Your task to perform on an android device: View the shopping cart on bestbuy.com. Add razer blackwidow to the cart on bestbuy.com Image 0: 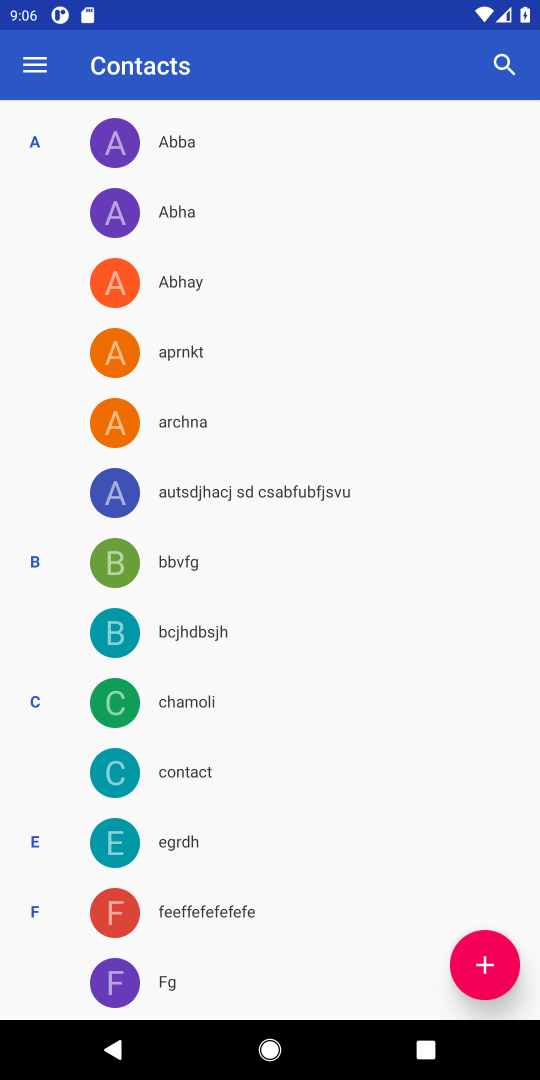
Step 0: press home button
Your task to perform on an android device: View the shopping cart on bestbuy.com. Add razer blackwidow to the cart on bestbuy.com Image 1: 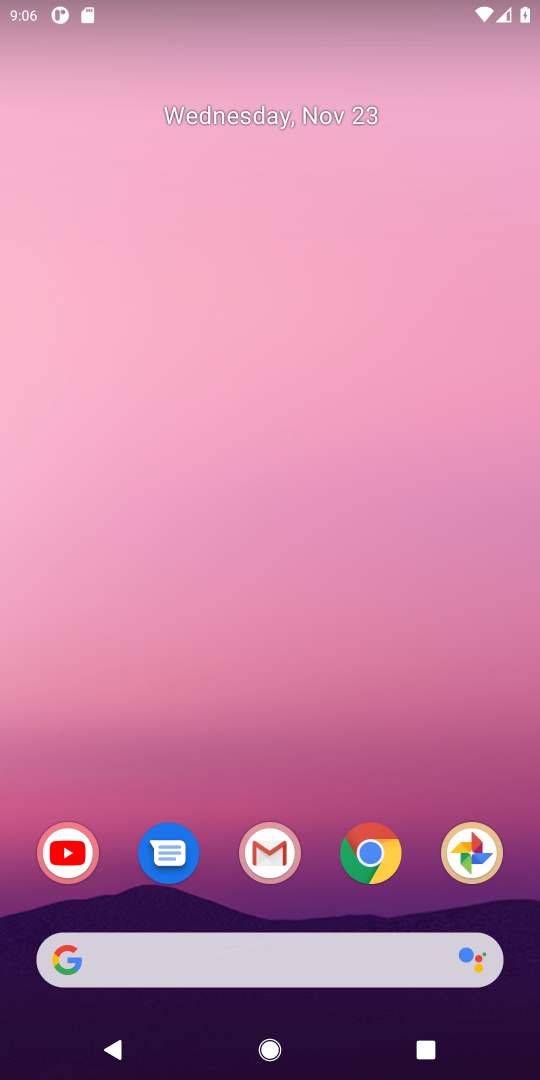
Step 1: click (368, 857)
Your task to perform on an android device: View the shopping cart on bestbuy.com. Add razer blackwidow to the cart on bestbuy.com Image 2: 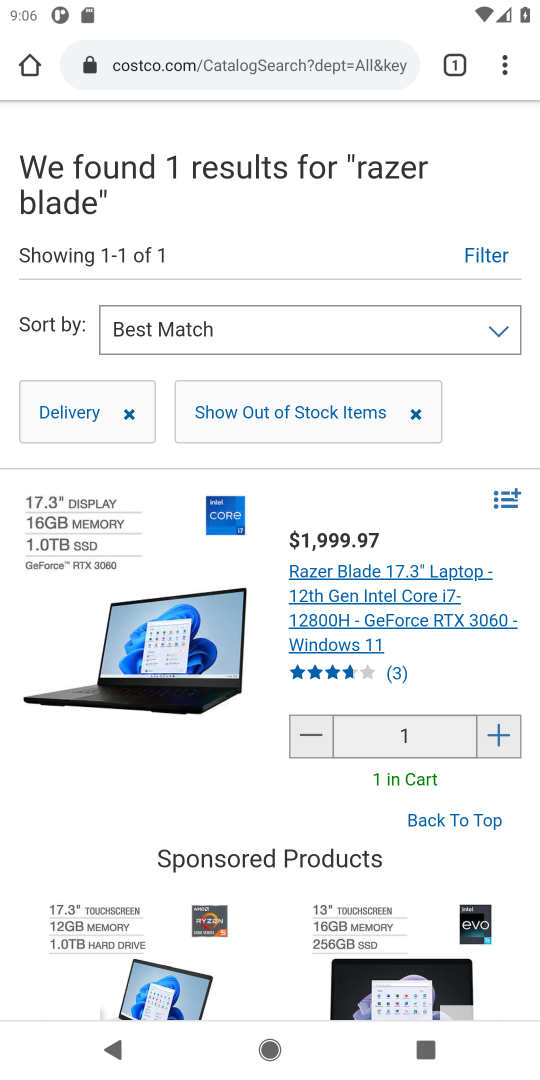
Step 2: click (197, 71)
Your task to perform on an android device: View the shopping cart on bestbuy.com. Add razer blackwidow to the cart on bestbuy.com Image 3: 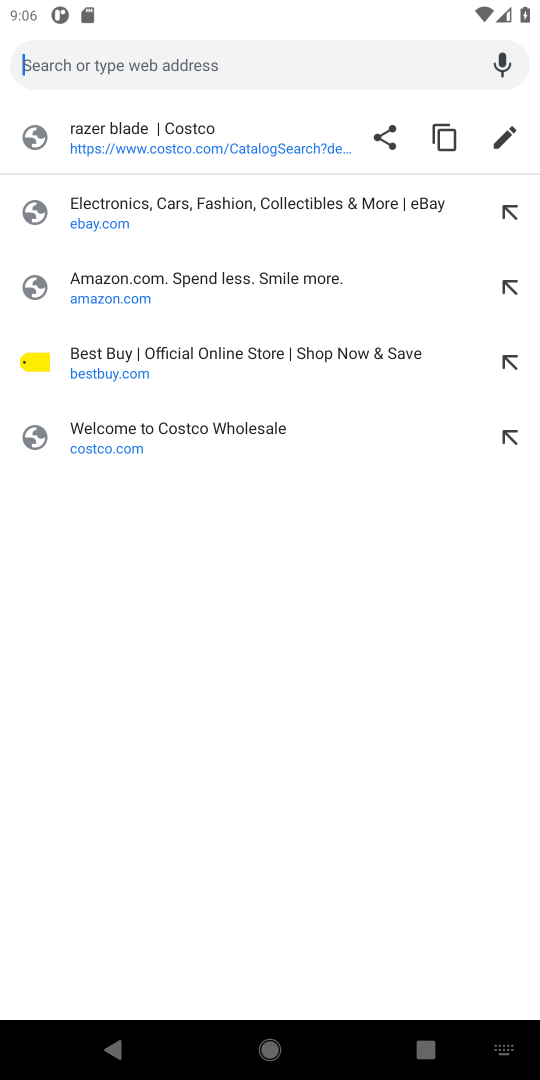
Step 3: click (82, 361)
Your task to perform on an android device: View the shopping cart on bestbuy.com. Add razer blackwidow to the cart on bestbuy.com Image 4: 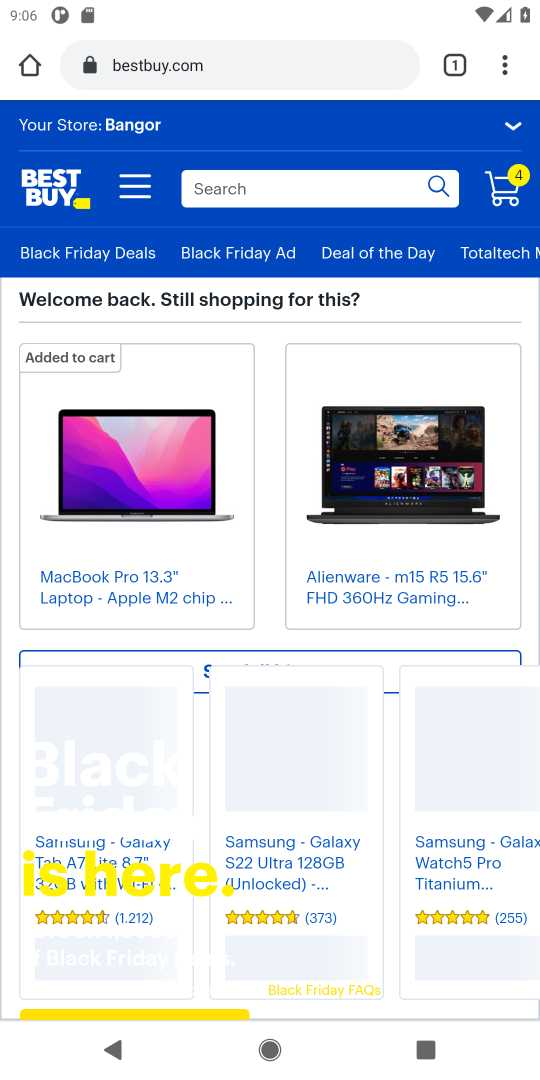
Step 4: click (513, 193)
Your task to perform on an android device: View the shopping cart on bestbuy.com. Add razer blackwidow to the cart on bestbuy.com Image 5: 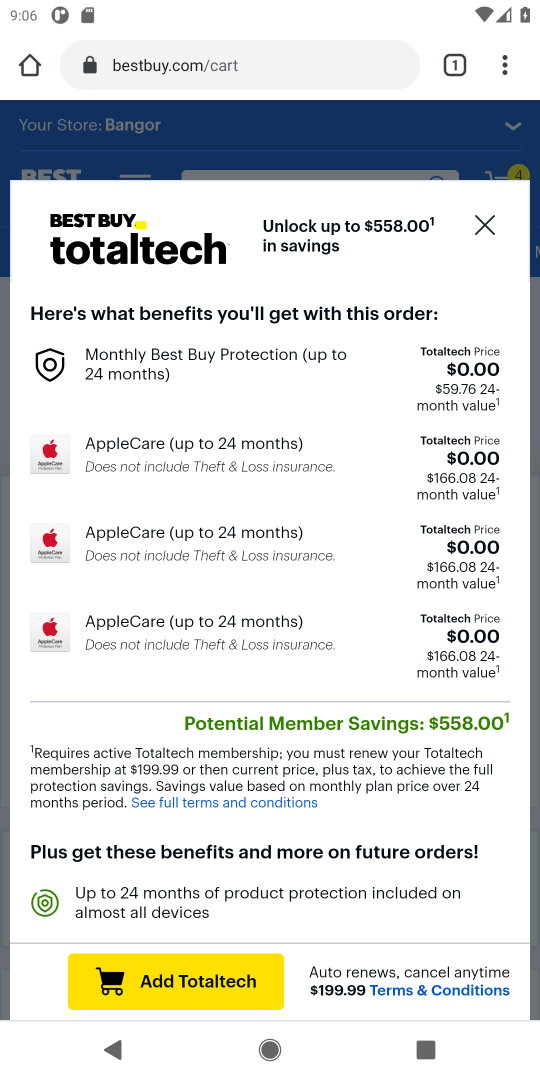
Step 5: click (488, 230)
Your task to perform on an android device: View the shopping cart on bestbuy.com. Add razer blackwidow to the cart on bestbuy.com Image 6: 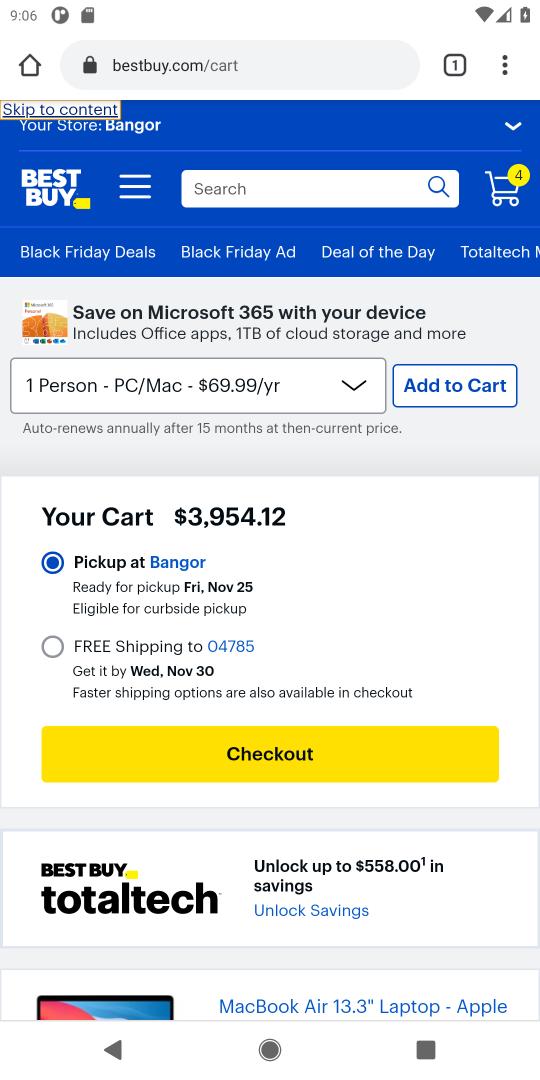
Step 6: click (273, 191)
Your task to perform on an android device: View the shopping cart on bestbuy.com. Add razer blackwidow to the cart on bestbuy.com Image 7: 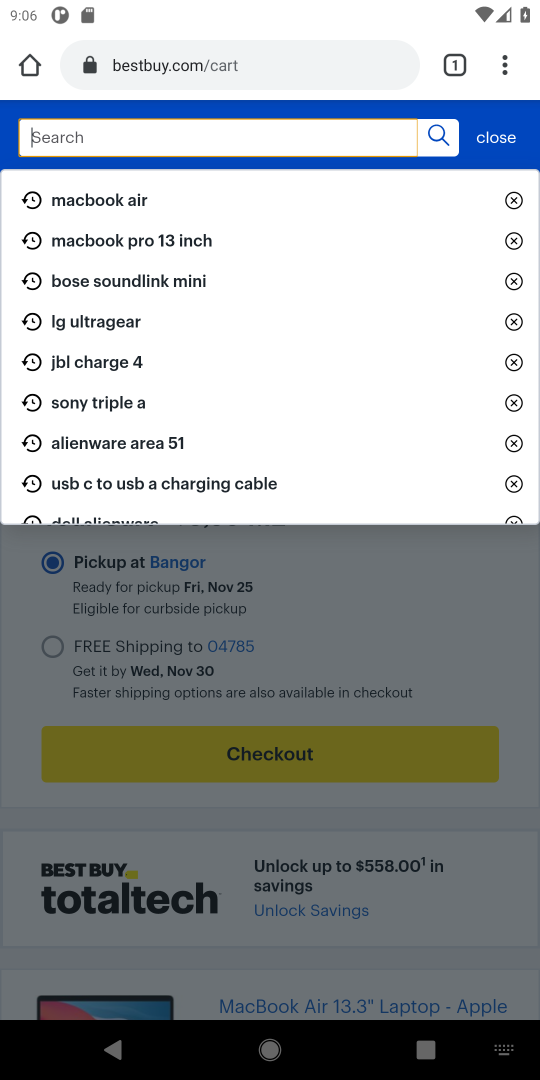
Step 7: type "razer blackwidow"
Your task to perform on an android device: View the shopping cart on bestbuy.com. Add razer blackwidow to the cart on bestbuy.com Image 8: 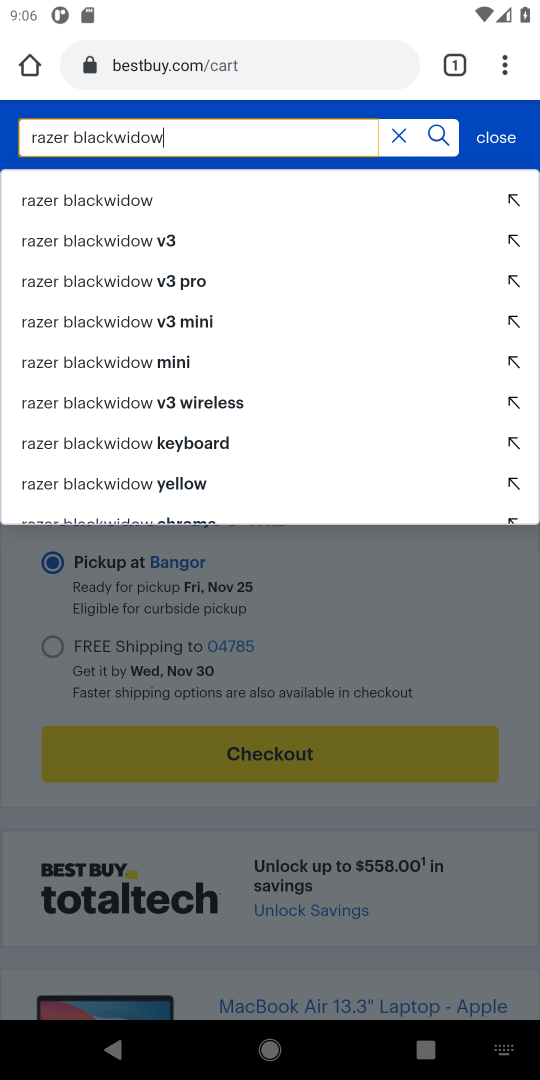
Step 8: click (125, 209)
Your task to perform on an android device: View the shopping cart on bestbuy.com. Add razer blackwidow to the cart on bestbuy.com Image 9: 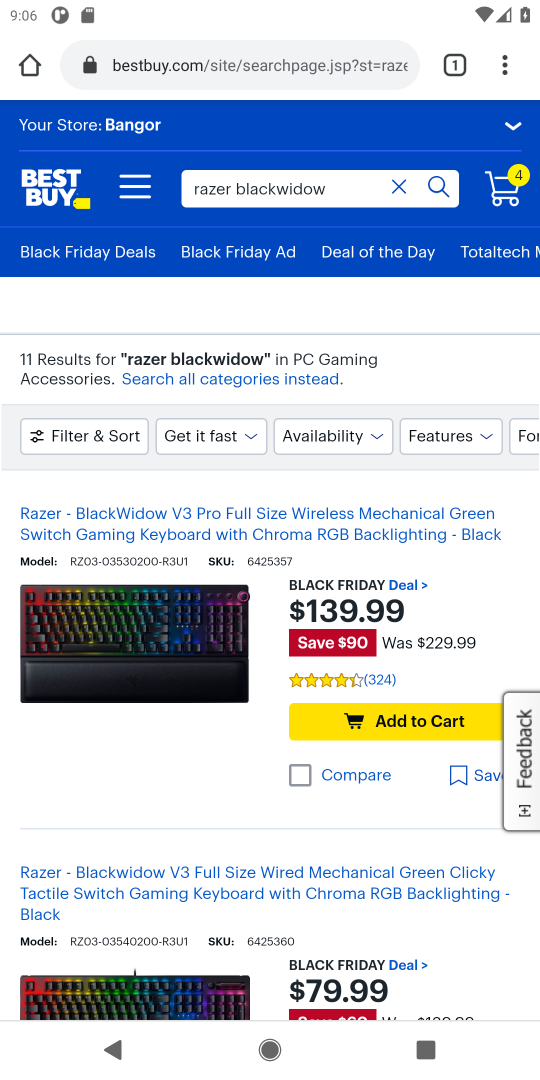
Step 9: click (401, 720)
Your task to perform on an android device: View the shopping cart on bestbuy.com. Add razer blackwidow to the cart on bestbuy.com Image 10: 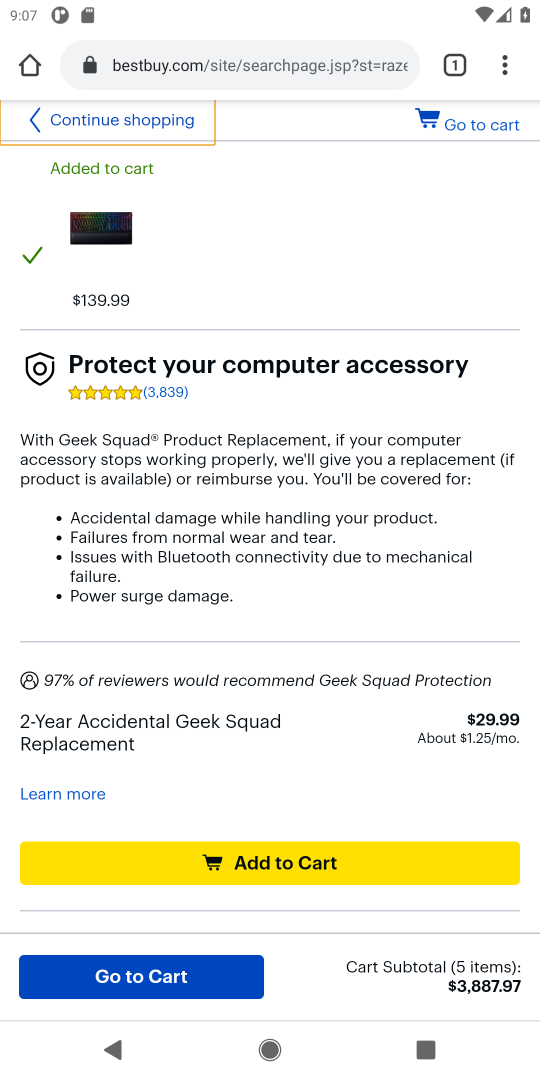
Step 10: task complete